Your task to perform on an android device: turn on data saver in the chrome app Image 0: 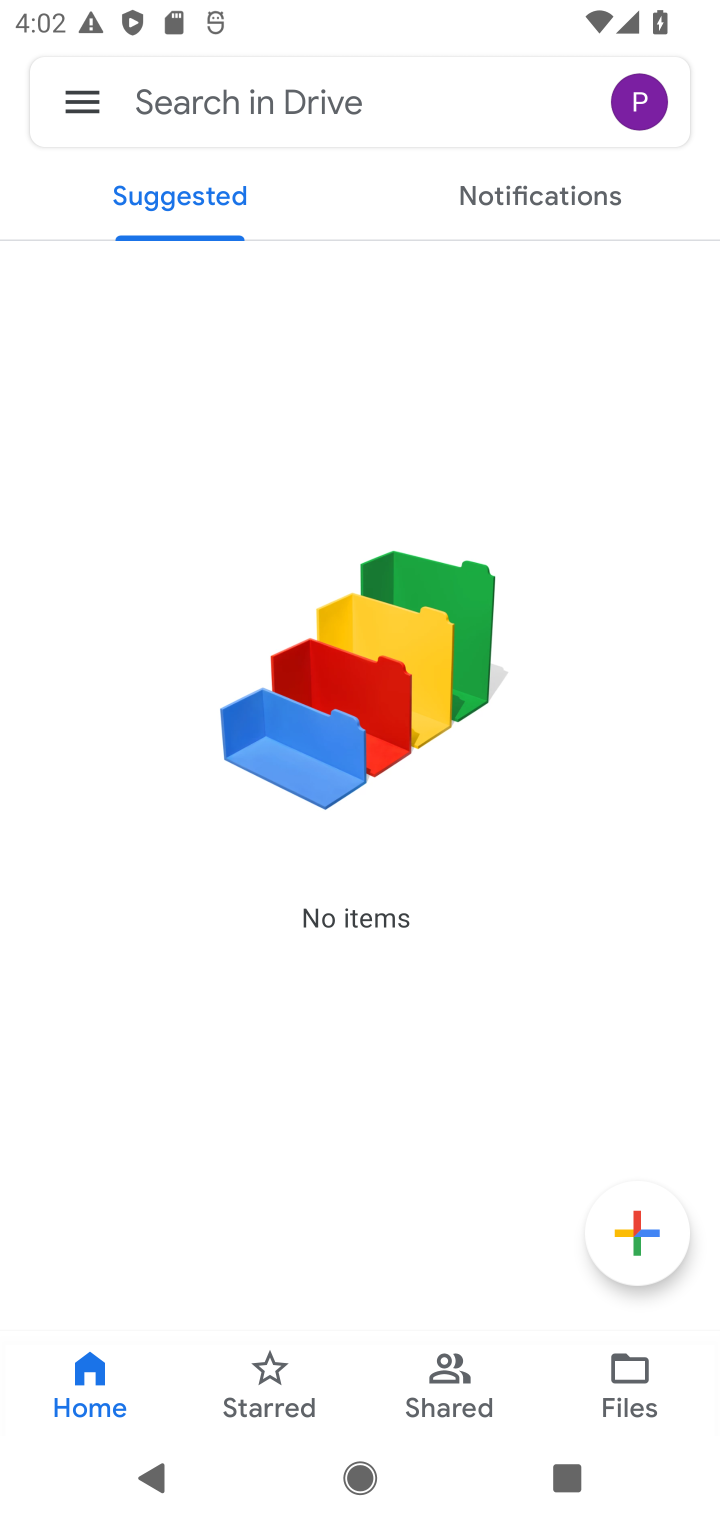
Step 0: press home button
Your task to perform on an android device: turn on data saver in the chrome app Image 1: 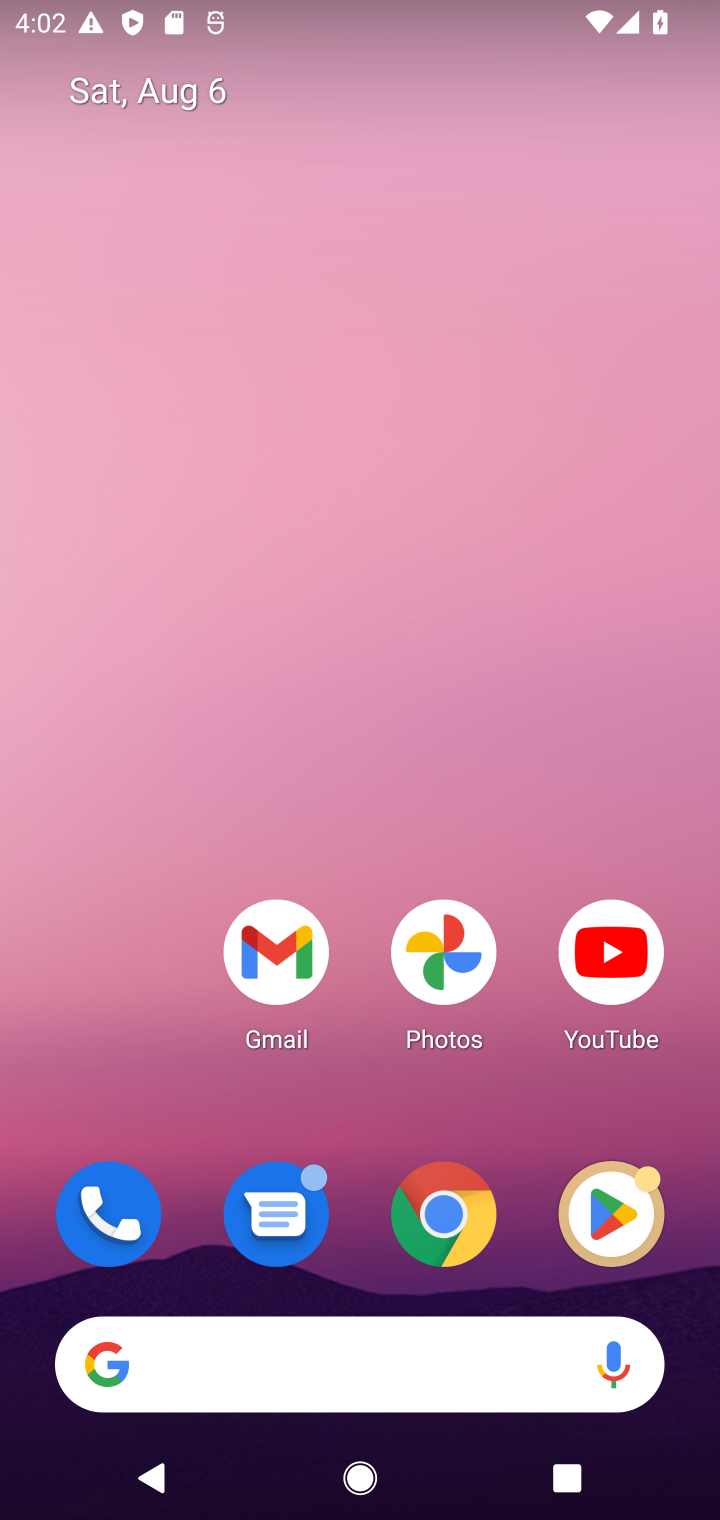
Step 1: click (430, 1203)
Your task to perform on an android device: turn on data saver in the chrome app Image 2: 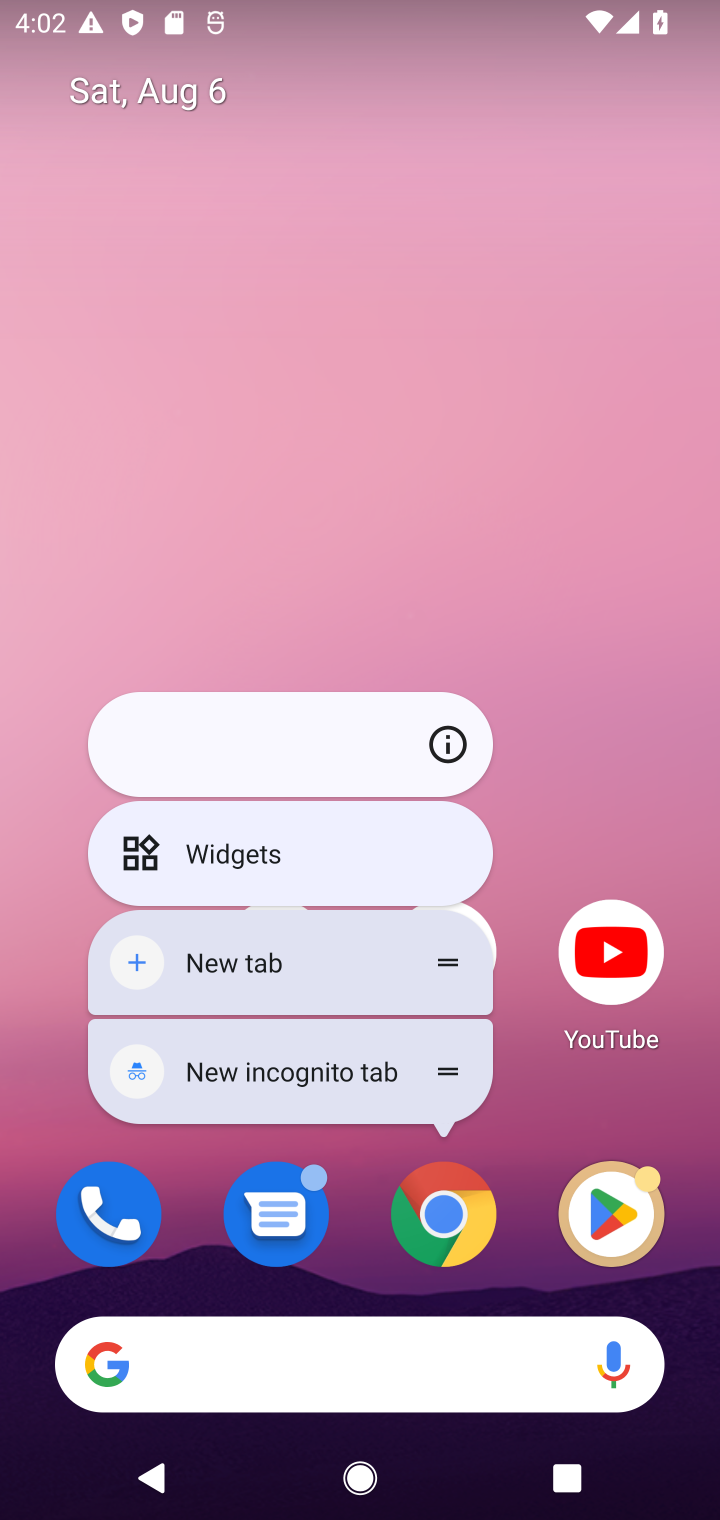
Step 2: click (442, 1220)
Your task to perform on an android device: turn on data saver in the chrome app Image 3: 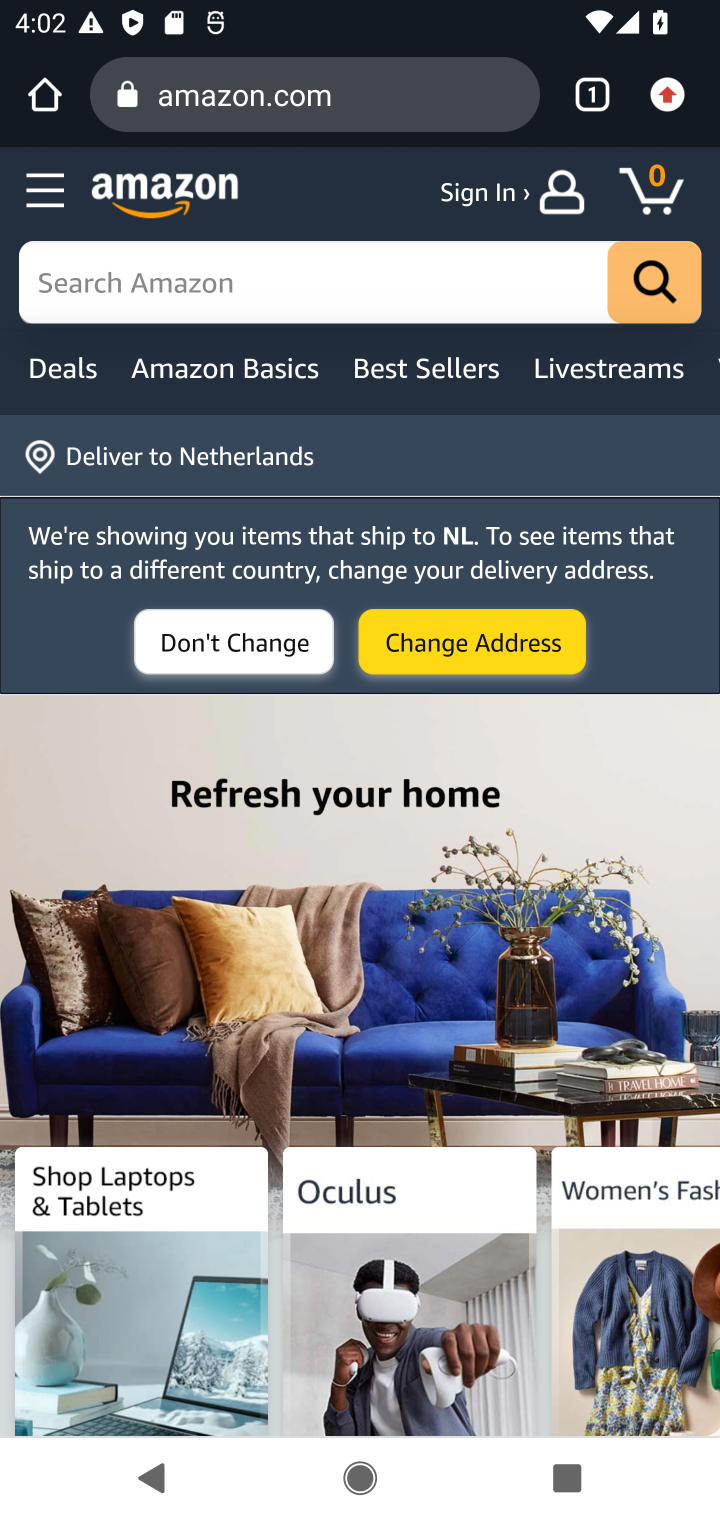
Step 3: click (666, 94)
Your task to perform on an android device: turn on data saver in the chrome app Image 4: 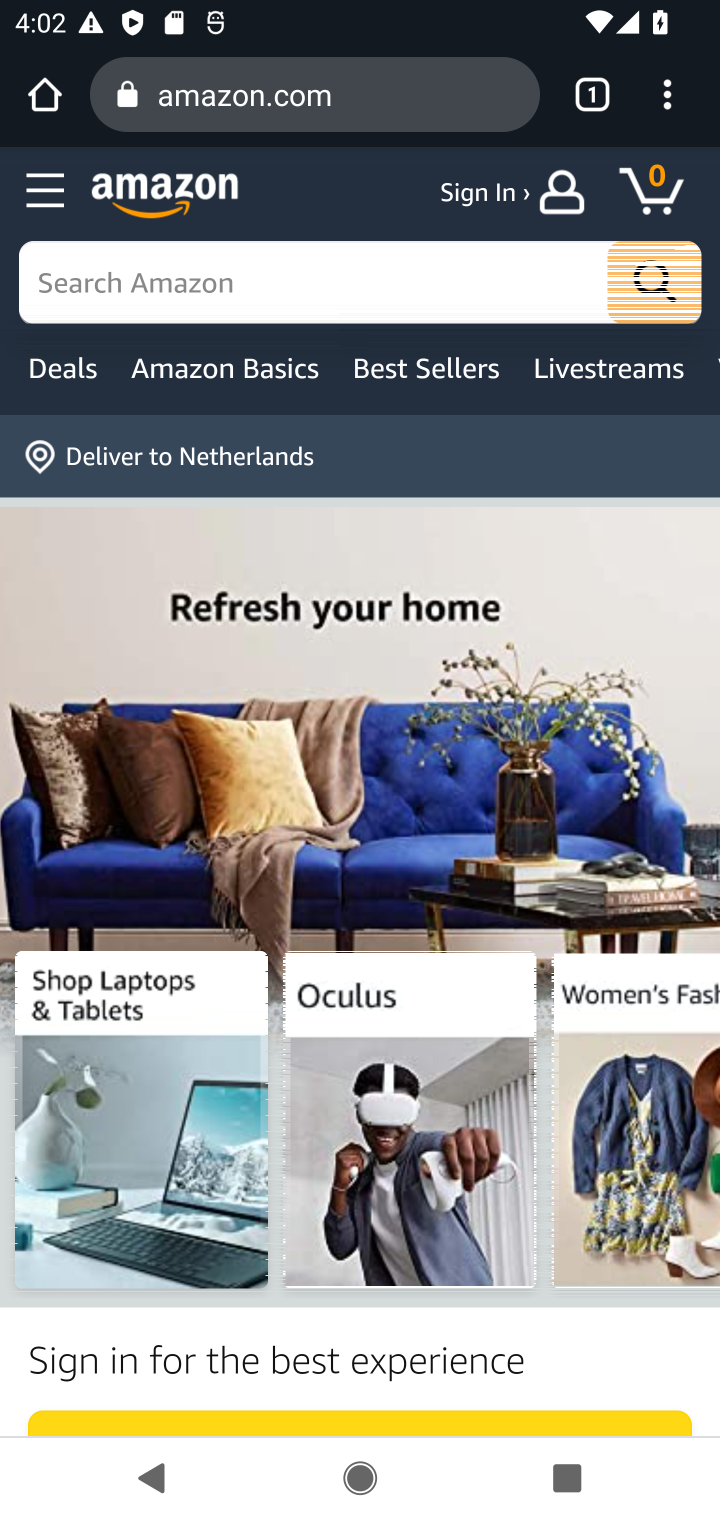
Step 4: click (671, 104)
Your task to perform on an android device: turn on data saver in the chrome app Image 5: 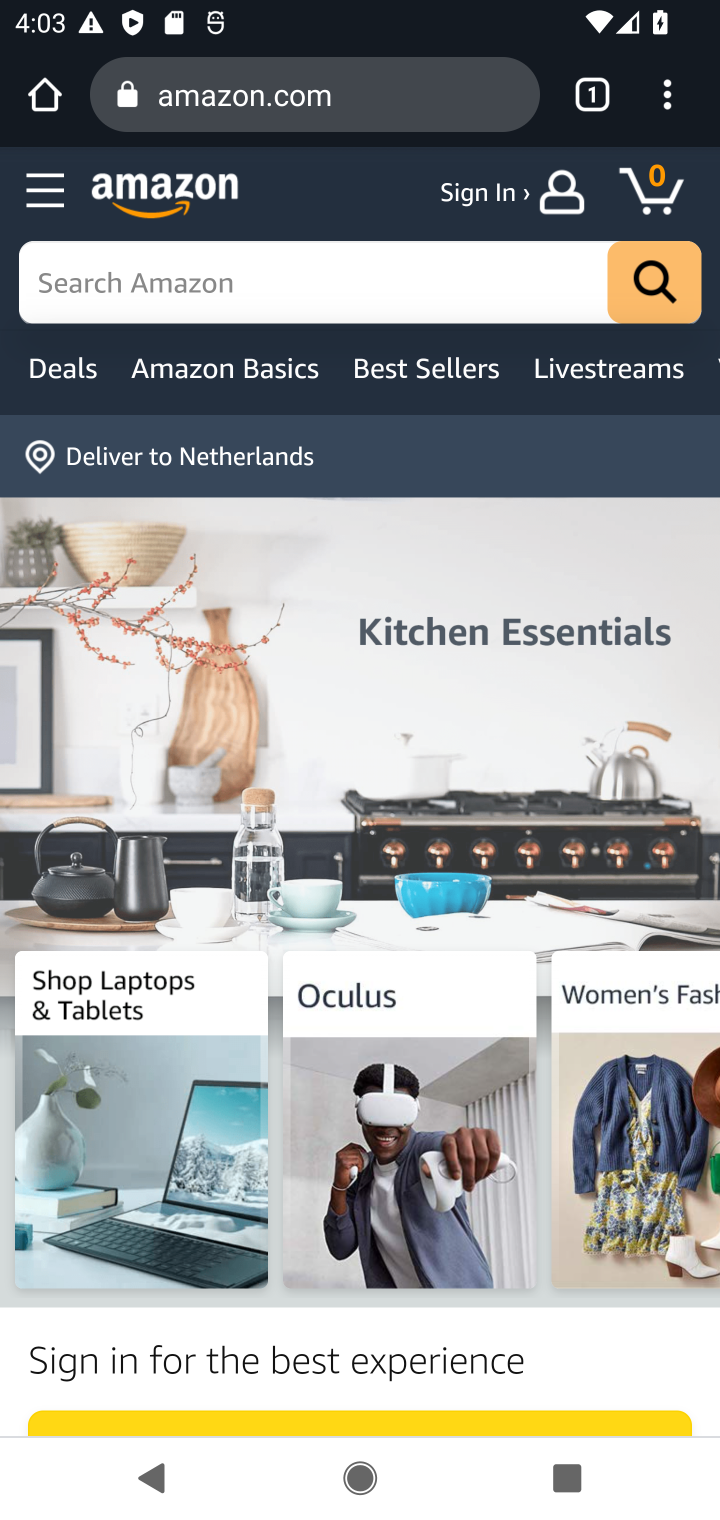
Step 5: click (671, 104)
Your task to perform on an android device: turn on data saver in the chrome app Image 6: 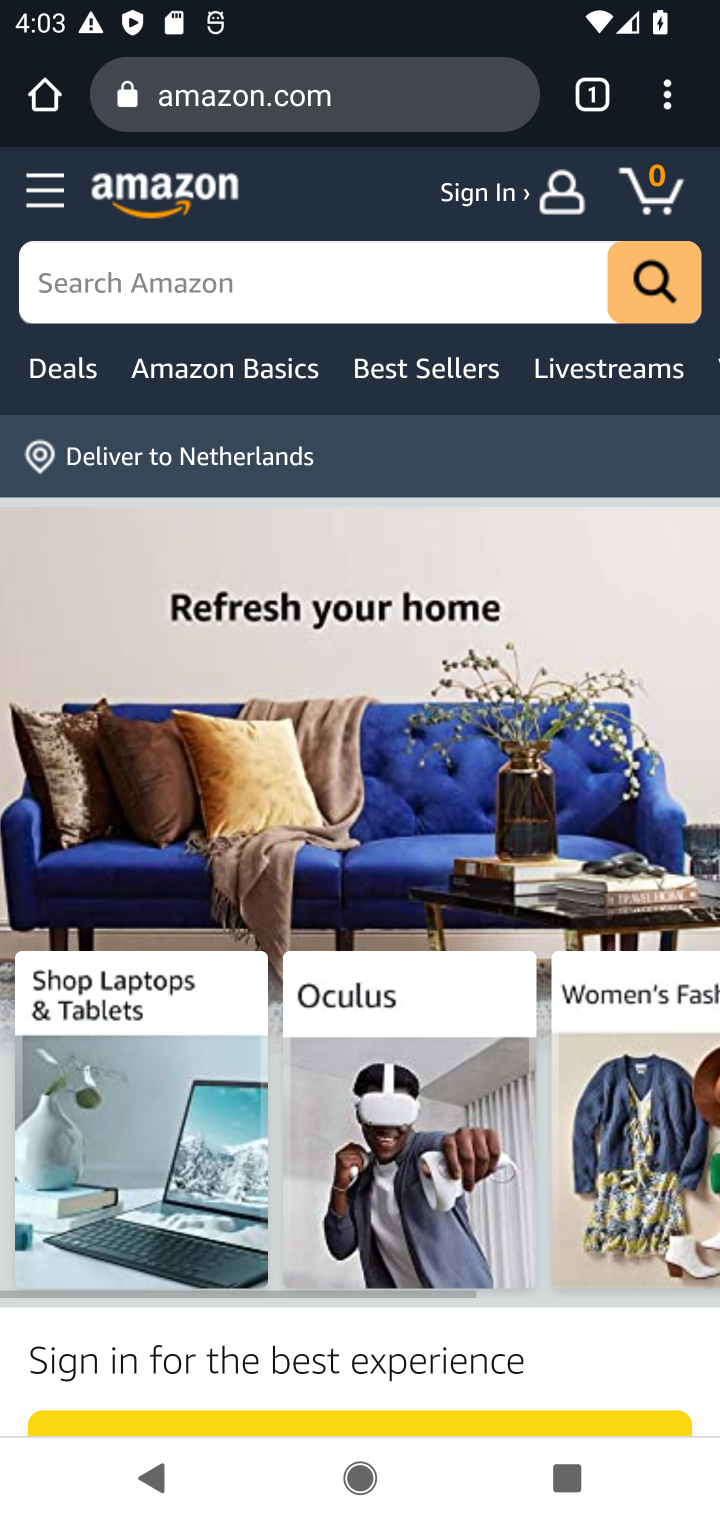
Step 6: click (671, 104)
Your task to perform on an android device: turn on data saver in the chrome app Image 7: 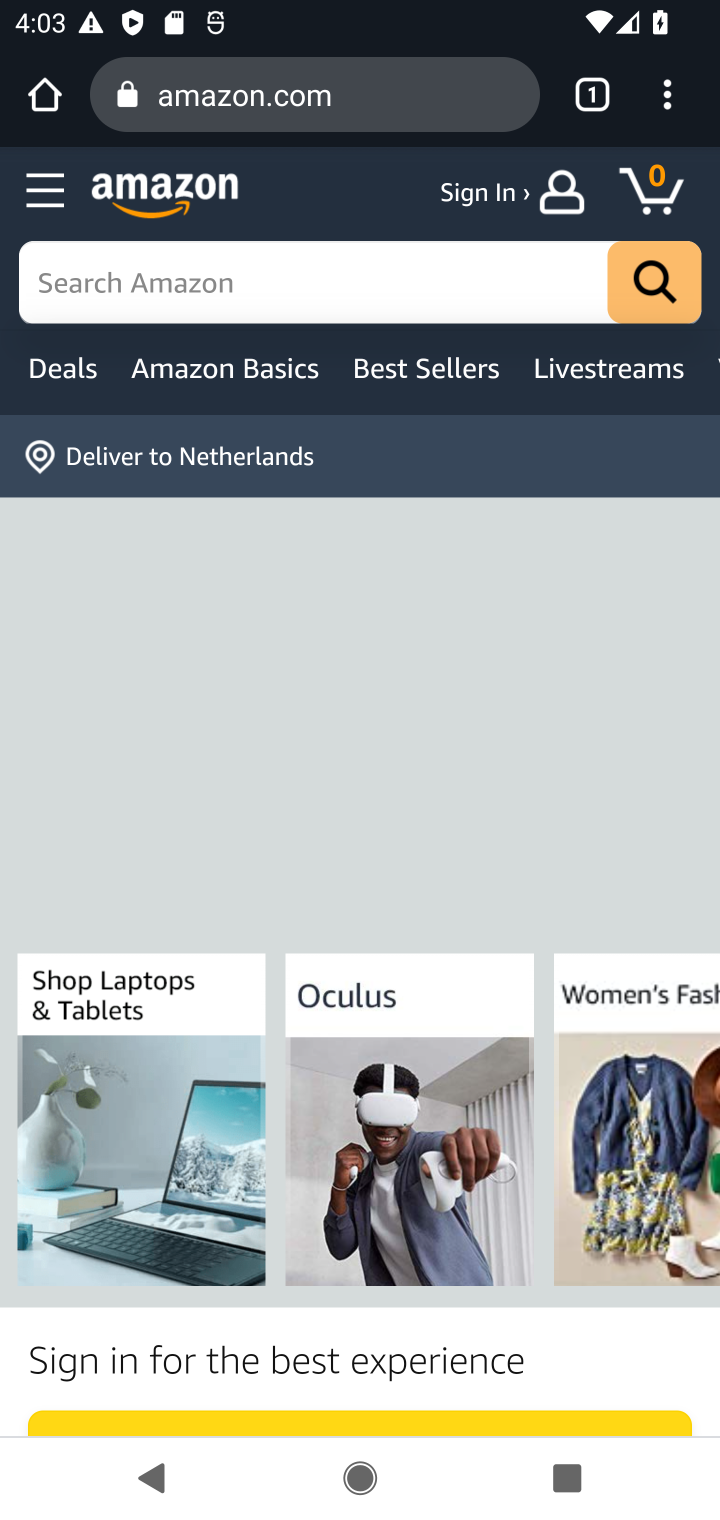
Step 7: click (673, 104)
Your task to perform on an android device: turn on data saver in the chrome app Image 8: 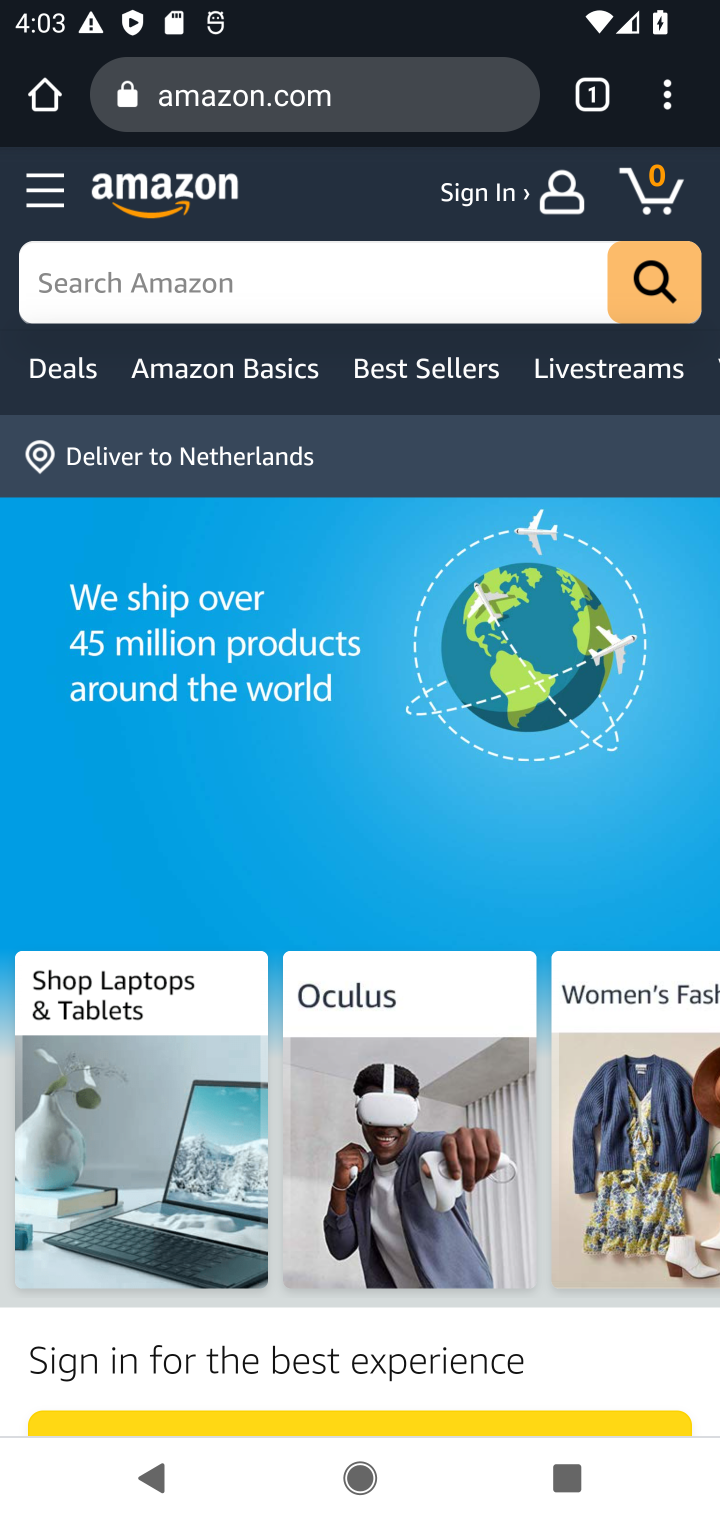
Step 8: click (668, 104)
Your task to perform on an android device: turn on data saver in the chrome app Image 9: 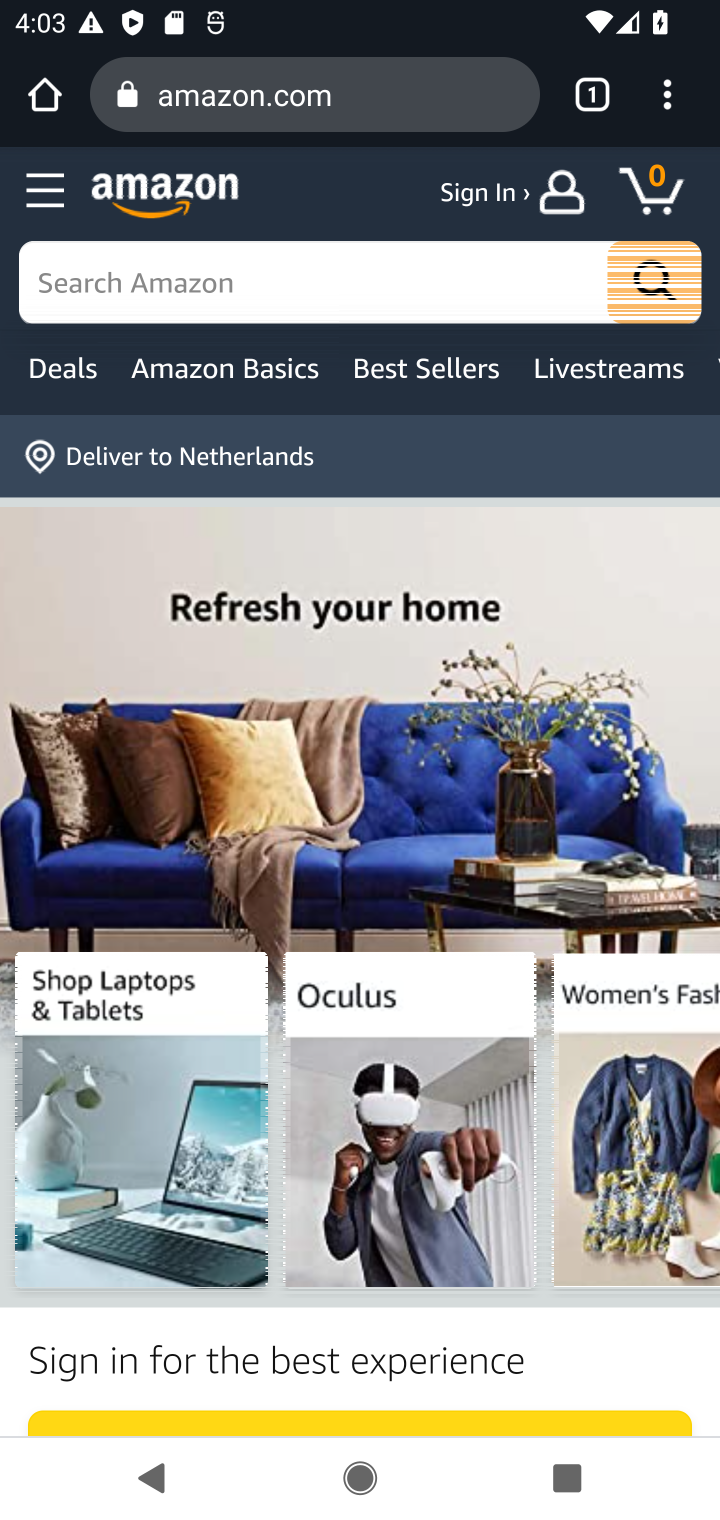
Step 9: click (668, 82)
Your task to perform on an android device: turn on data saver in the chrome app Image 10: 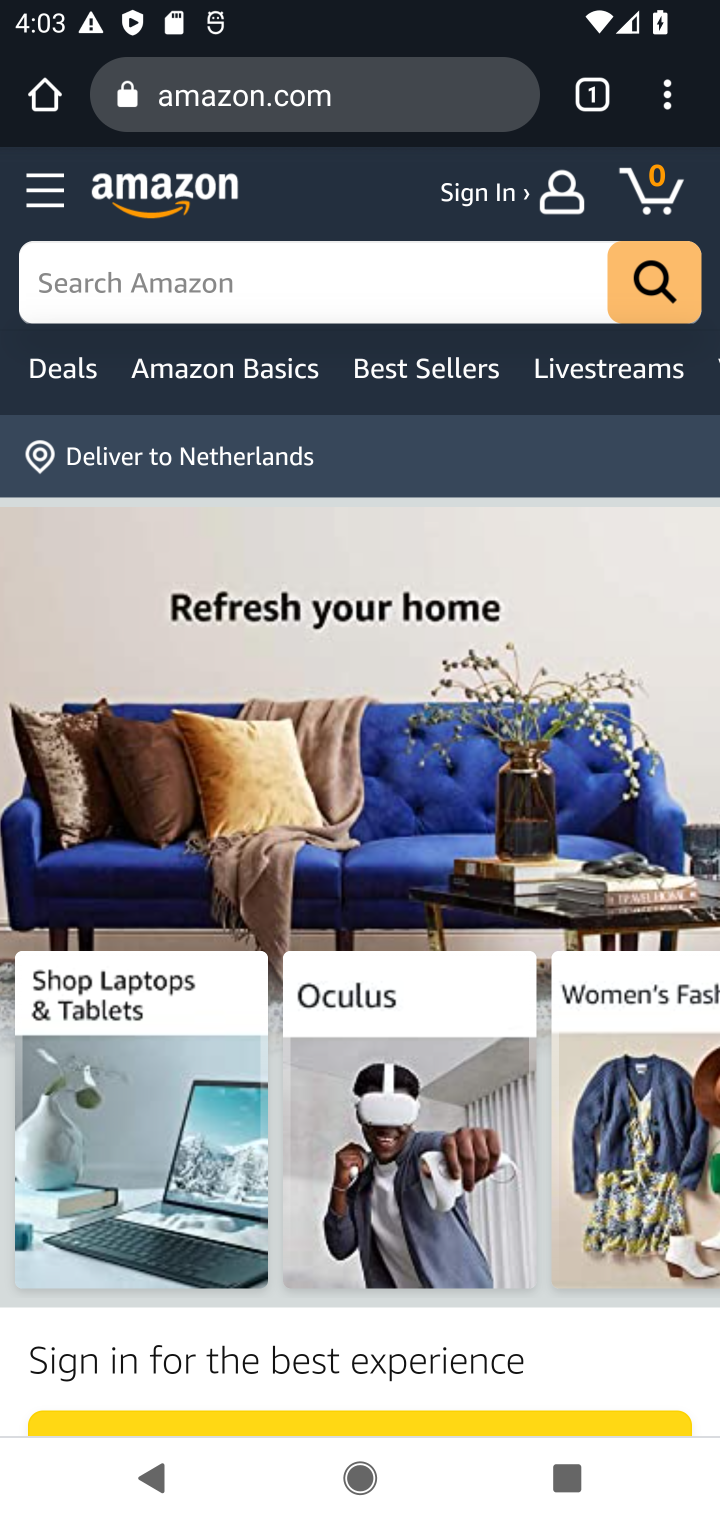
Step 10: click (589, 88)
Your task to perform on an android device: turn on data saver in the chrome app Image 11: 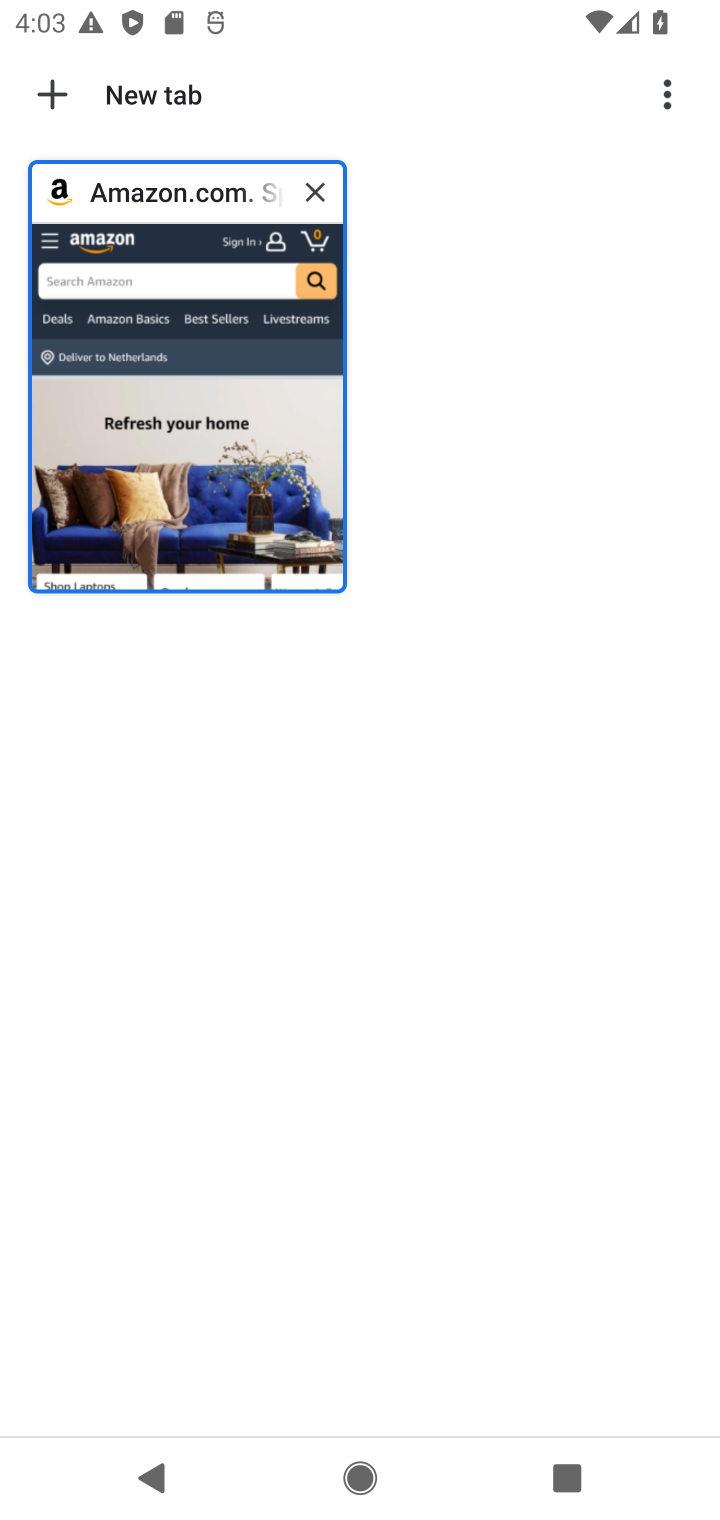
Step 11: click (43, 91)
Your task to perform on an android device: turn on data saver in the chrome app Image 12: 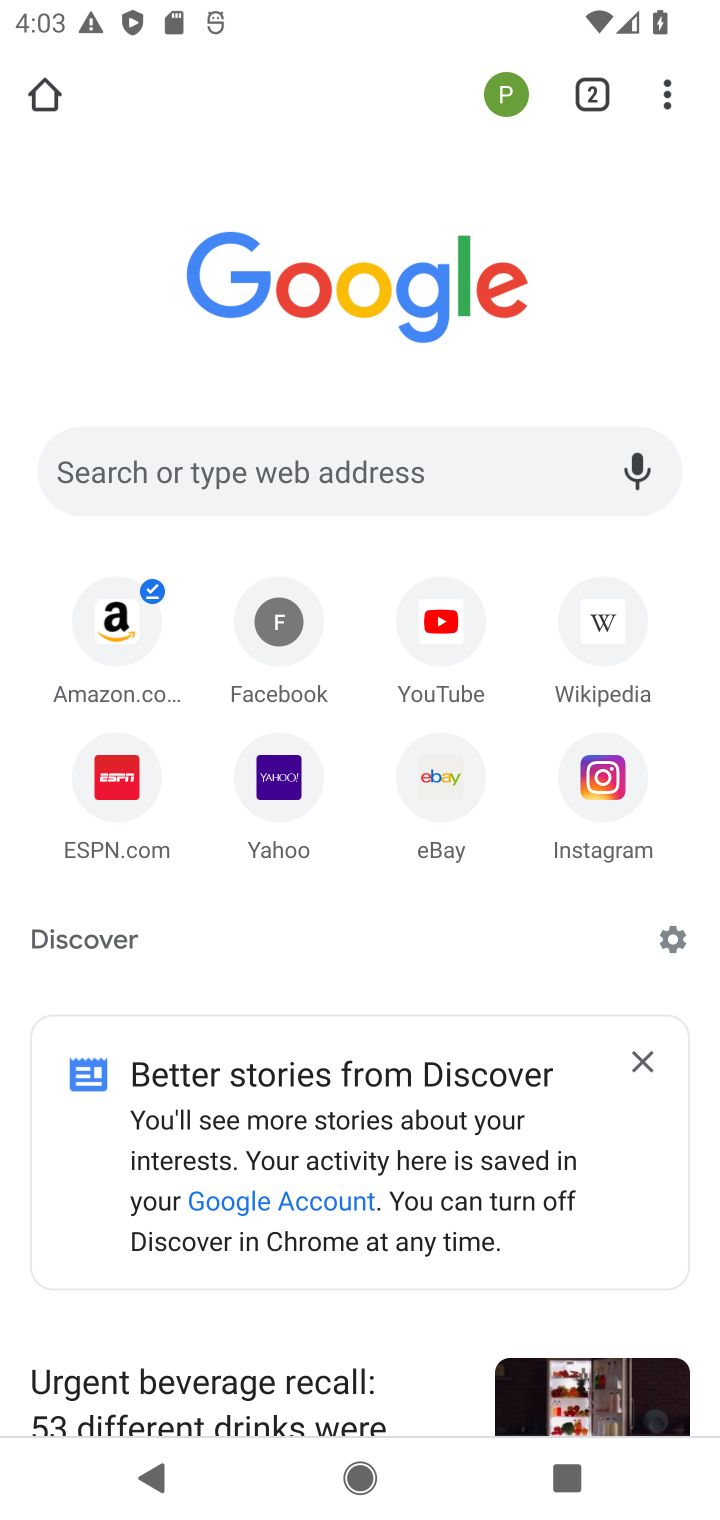
Step 12: click (680, 106)
Your task to perform on an android device: turn on data saver in the chrome app Image 13: 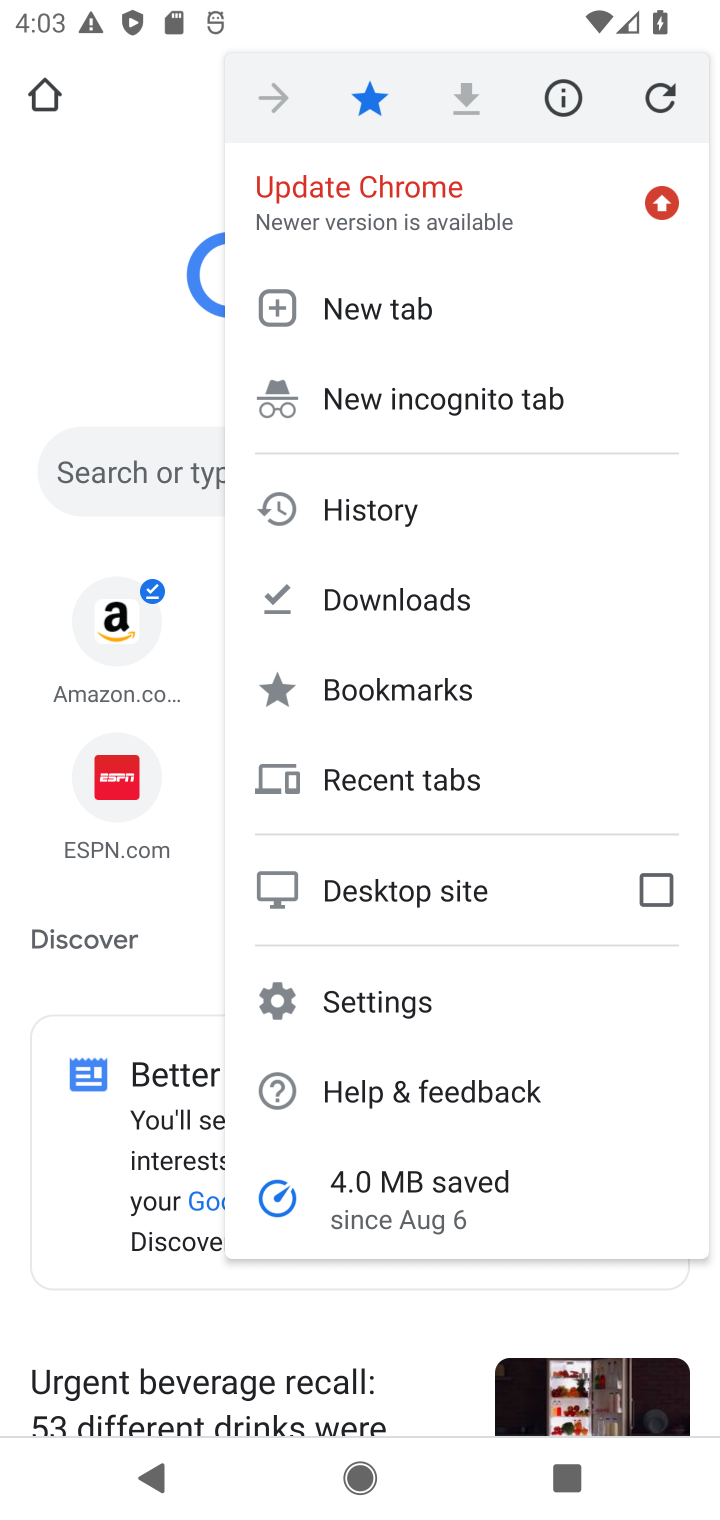
Step 13: click (401, 1001)
Your task to perform on an android device: turn on data saver in the chrome app Image 14: 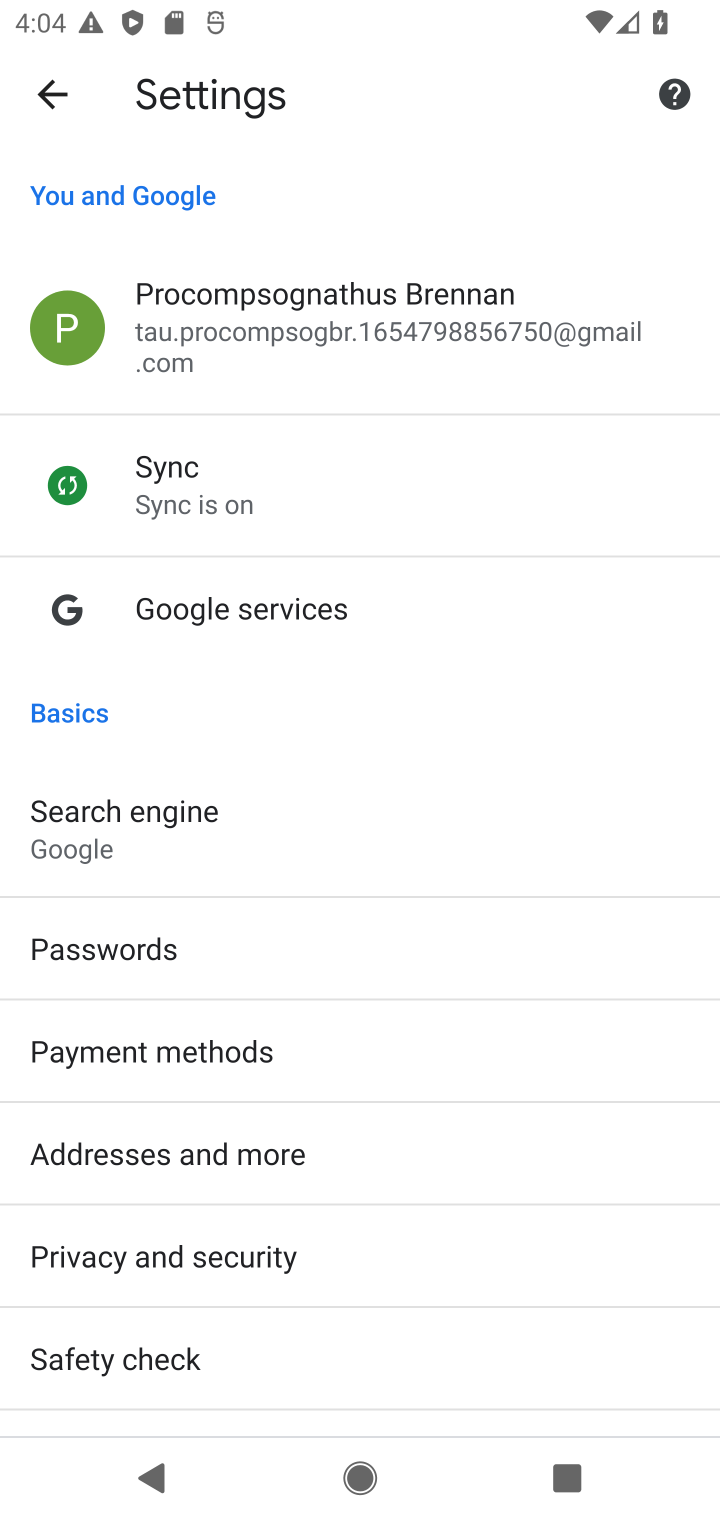
Step 14: drag from (228, 1290) to (233, 849)
Your task to perform on an android device: turn on data saver in the chrome app Image 15: 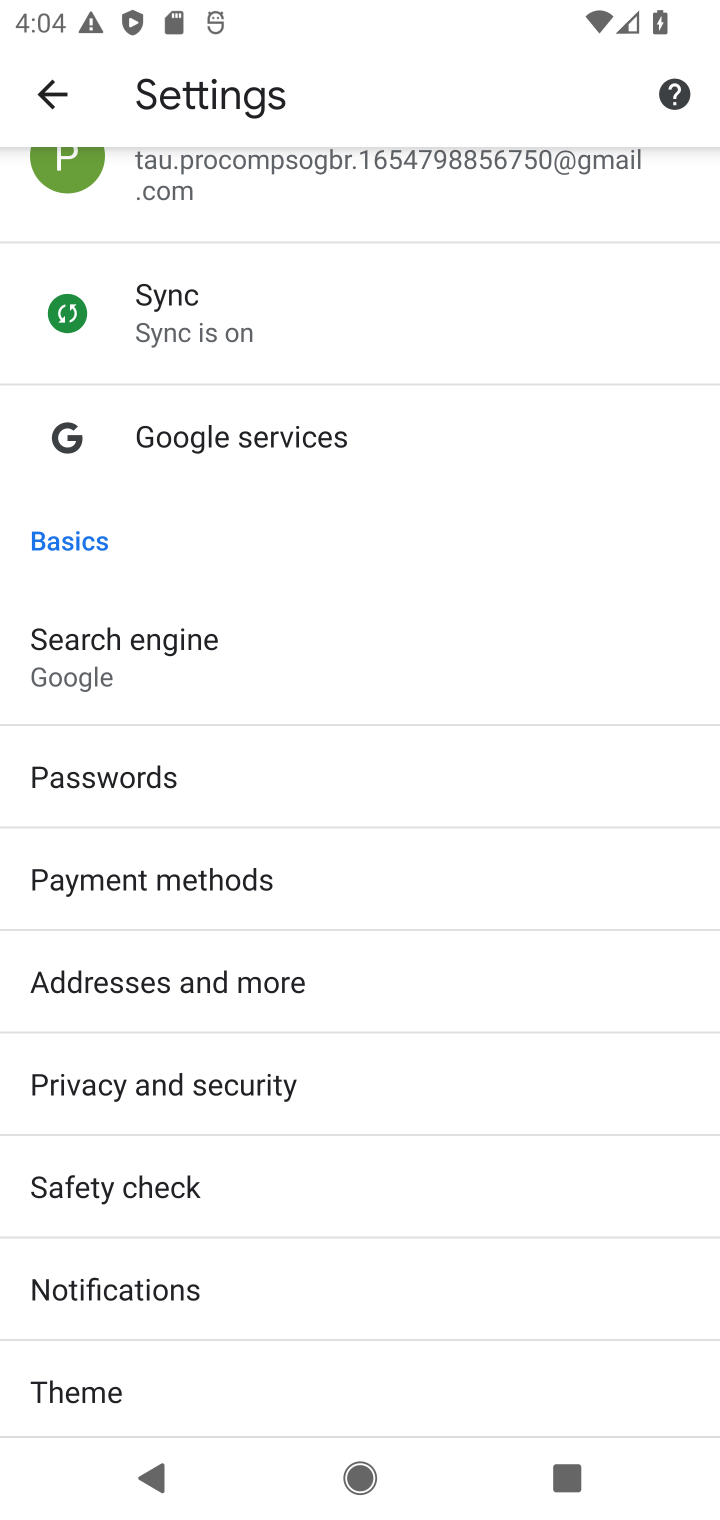
Step 15: drag from (190, 1262) to (232, 785)
Your task to perform on an android device: turn on data saver in the chrome app Image 16: 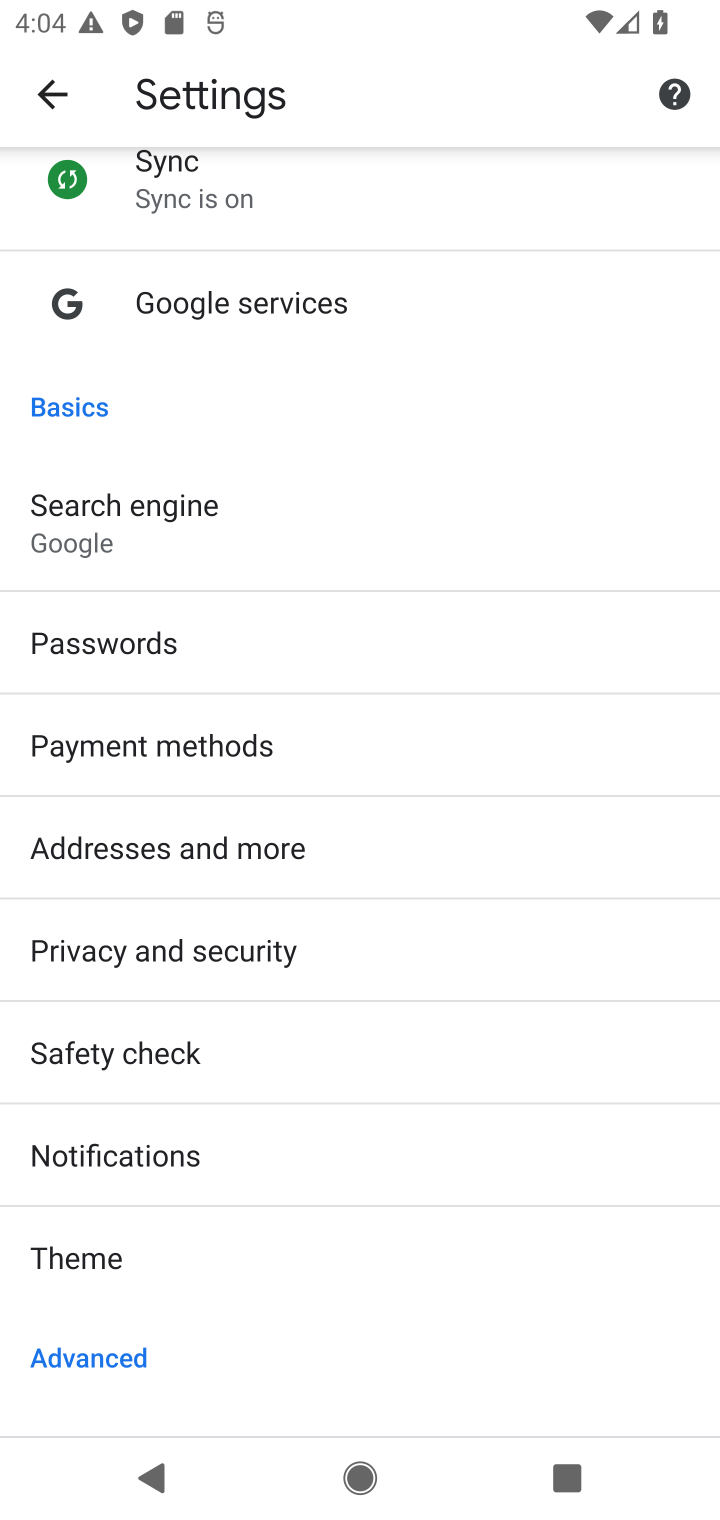
Step 16: drag from (207, 1295) to (268, 411)
Your task to perform on an android device: turn on data saver in the chrome app Image 17: 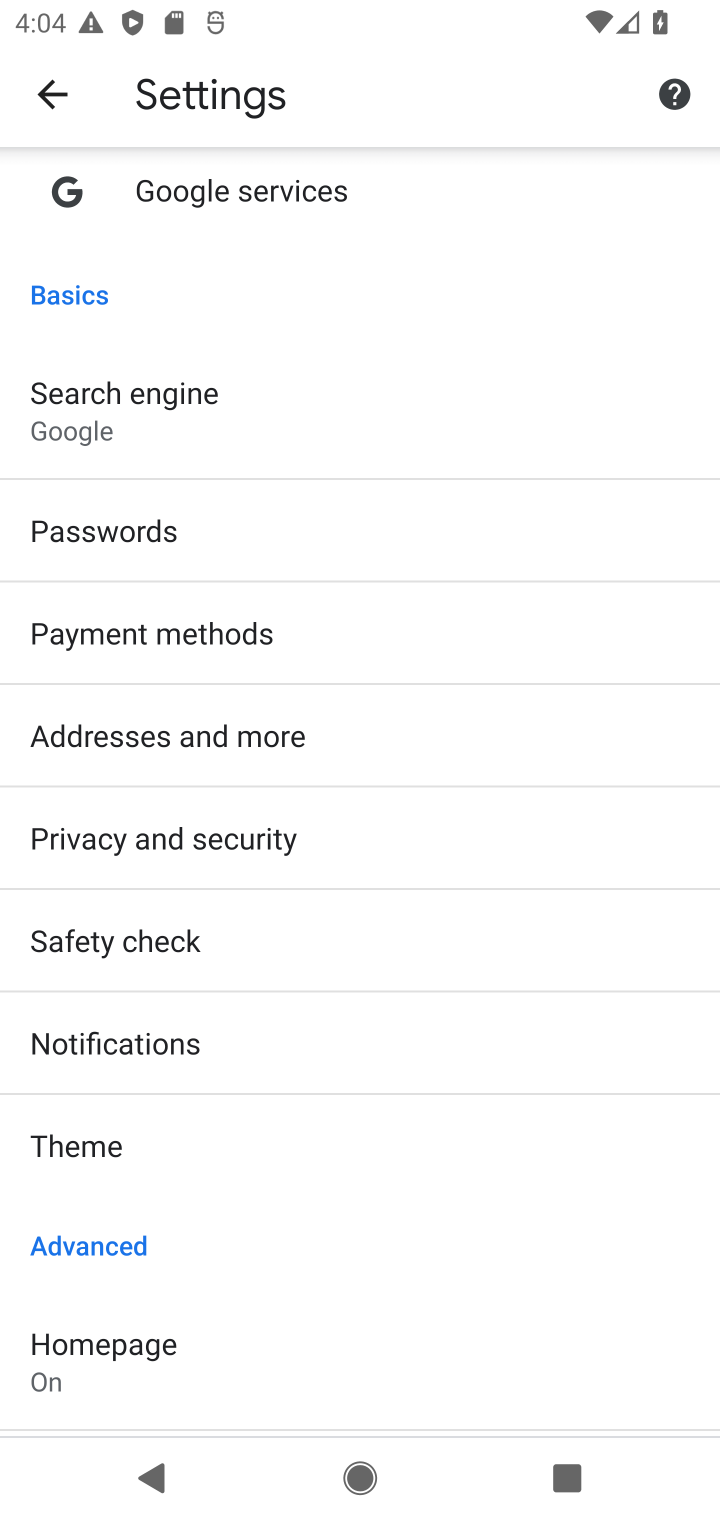
Step 17: drag from (200, 1276) to (273, 587)
Your task to perform on an android device: turn on data saver in the chrome app Image 18: 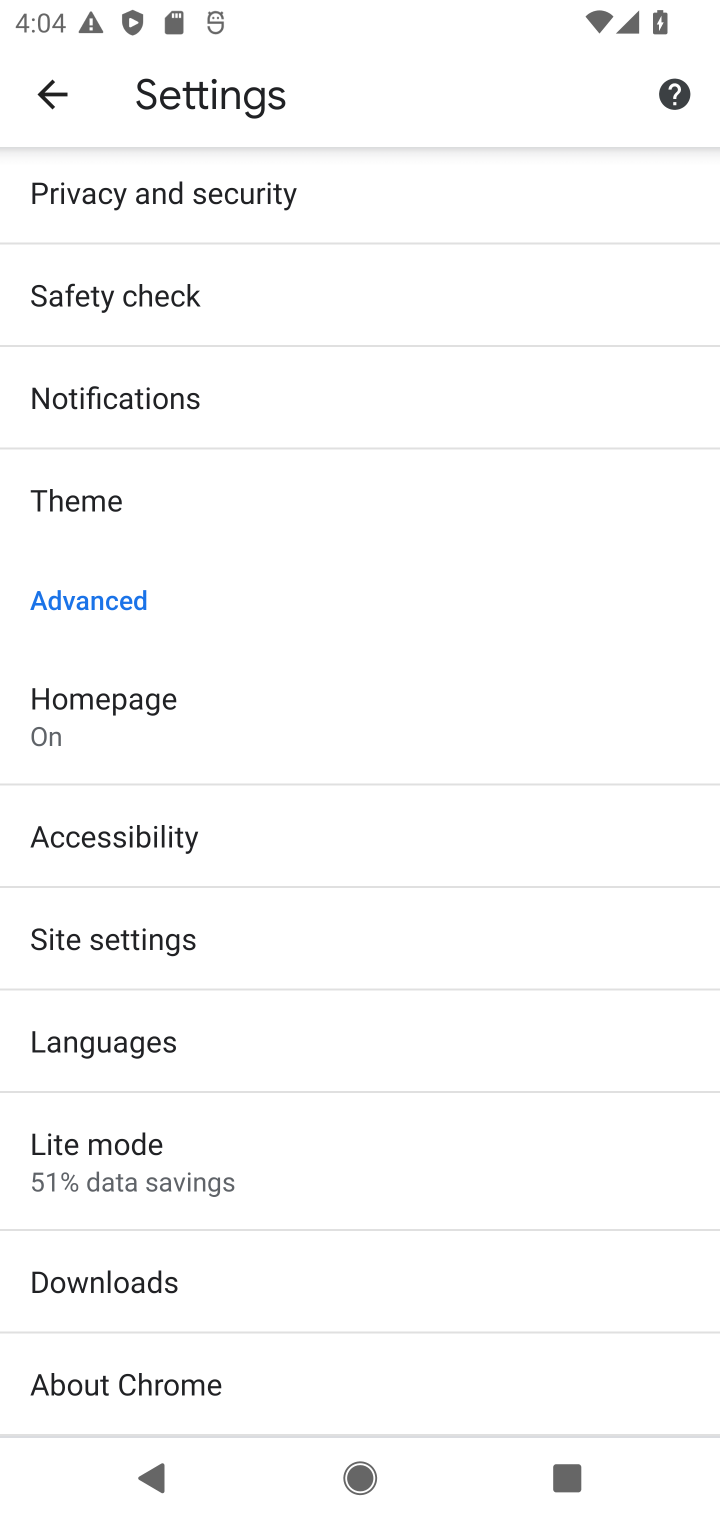
Step 18: click (140, 1178)
Your task to perform on an android device: turn on data saver in the chrome app Image 19: 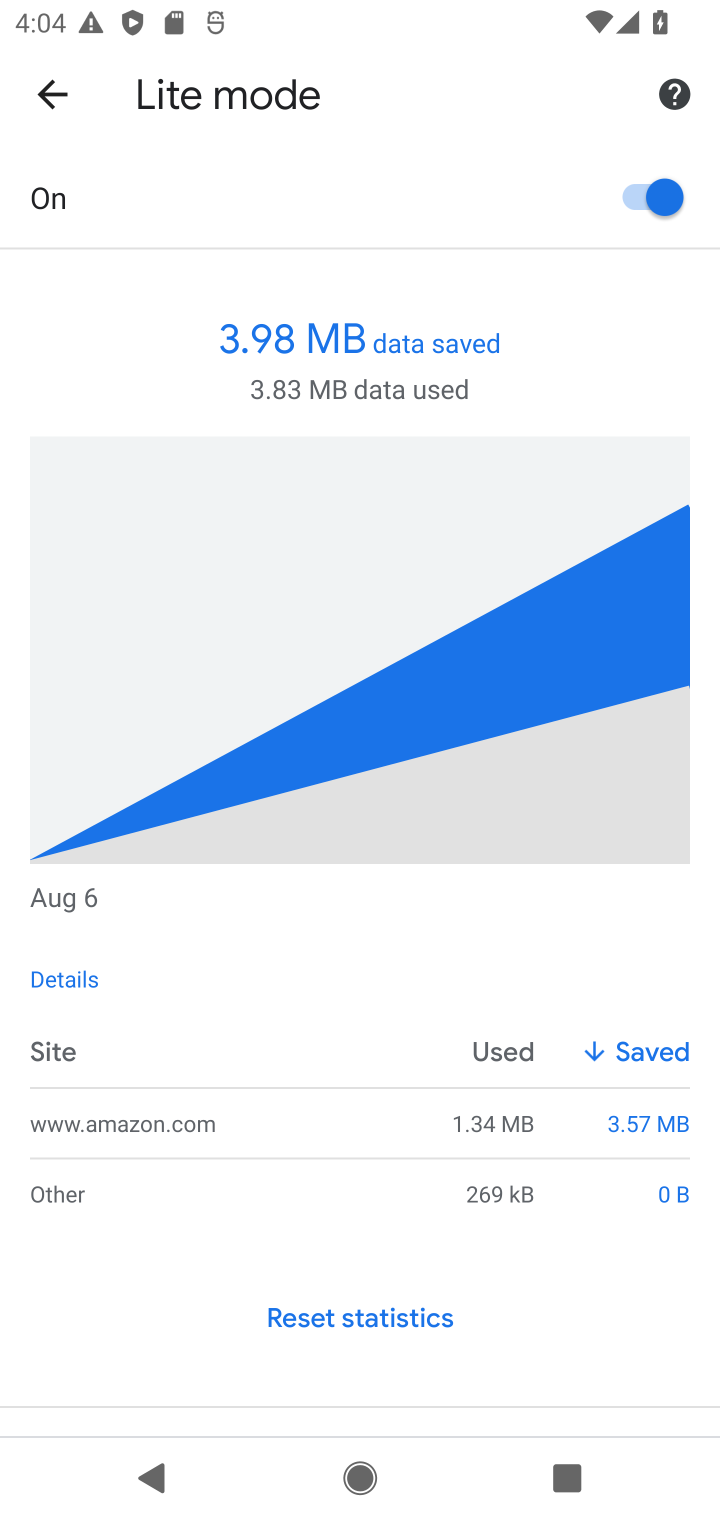
Step 19: task complete